Your task to perform on an android device: Open ESPN.com Image 0: 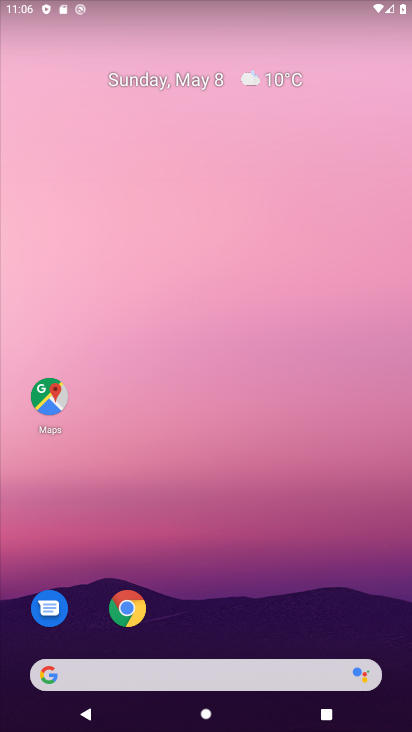
Step 0: click (131, 598)
Your task to perform on an android device: Open ESPN.com Image 1: 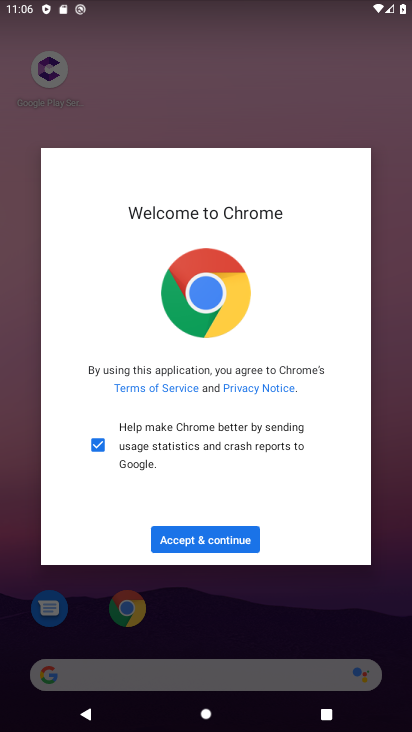
Step 1: click (225, 532)
Your task to perform on an android device: Open ESPN.com Image 2: 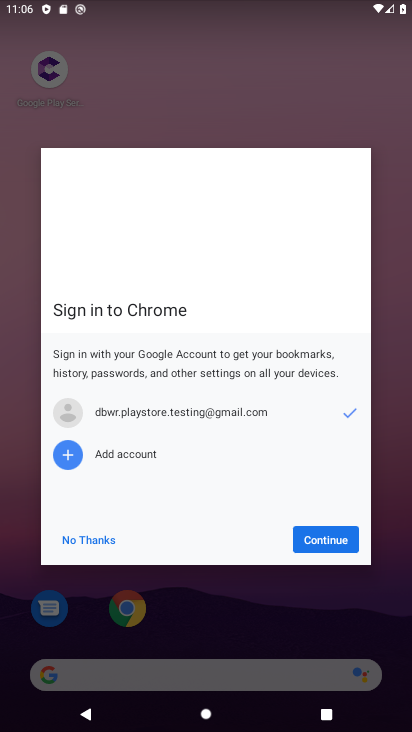
Step 2: click (342, 528)
Your task to perform on an android device: Open ESPN.com Image 3: 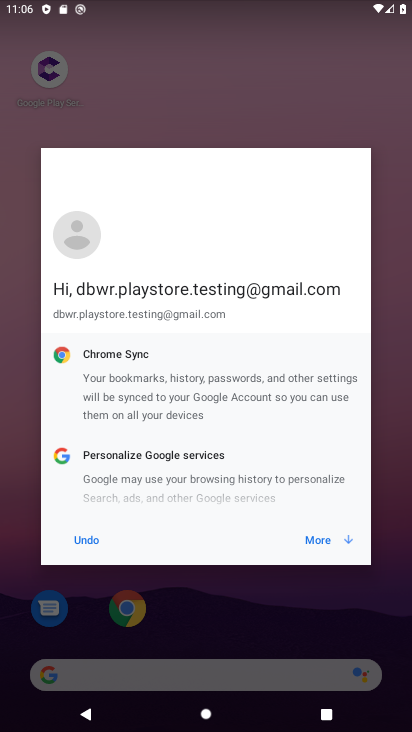
Step 3: click (326, 534)
Your task to perform on an android device: Open ESPN.com Image 4: 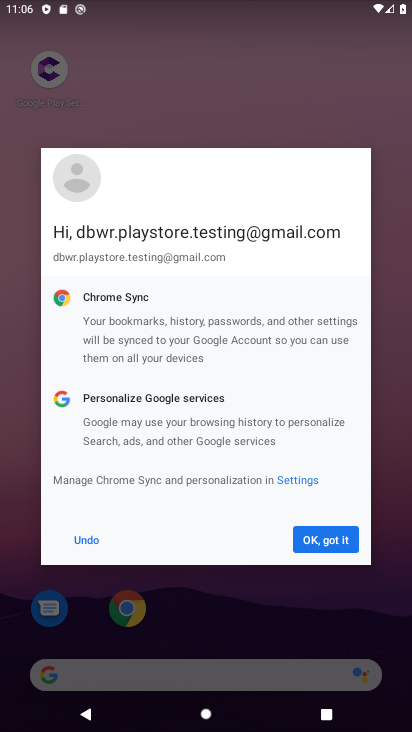
Step 4: click (326, 534)
Your task to perform on an android device: Open ESPN.com Image 5: 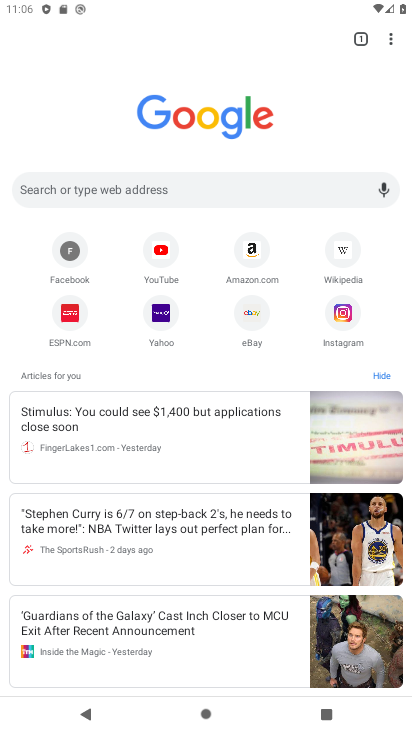
Step 5: click (65, 309)
Your task to perform on an android device: Open ESPN.com Image 6: 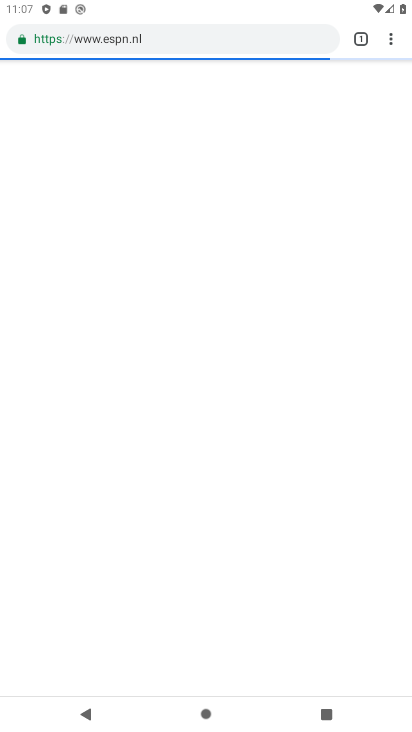
Step 6: task complete